Your task to perform on an android device: Check the news Image 0: 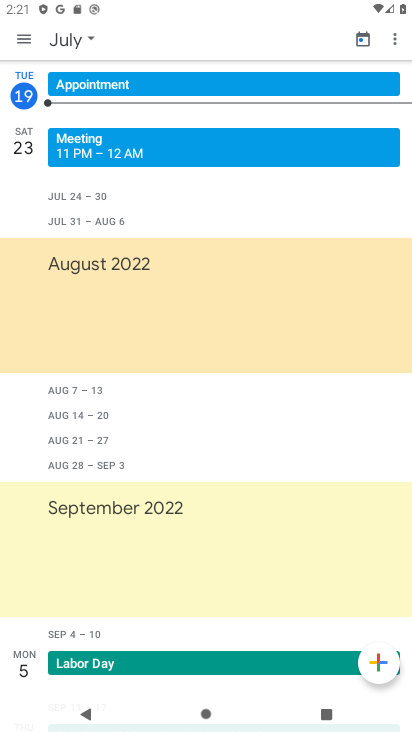
Step 0: press home button
Your task to perform on an android device: Check the news Image 1: 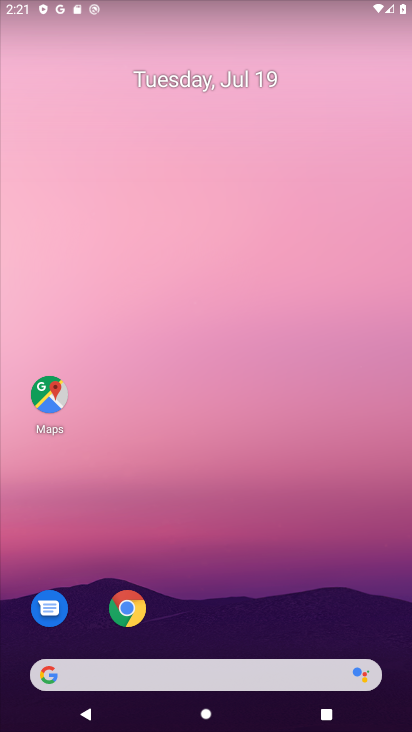
Step 1: click (131, 607)
Your task to perform on an android device: Check the news Image 2: 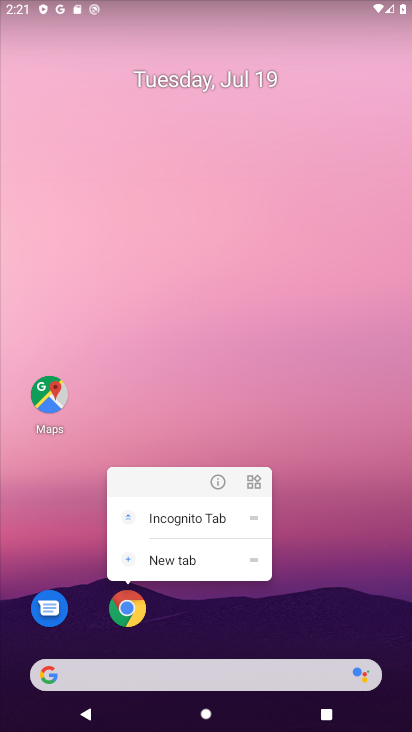
Step 2: click (131, 607)
Your task to perform on an android device: Check the news Image 3: 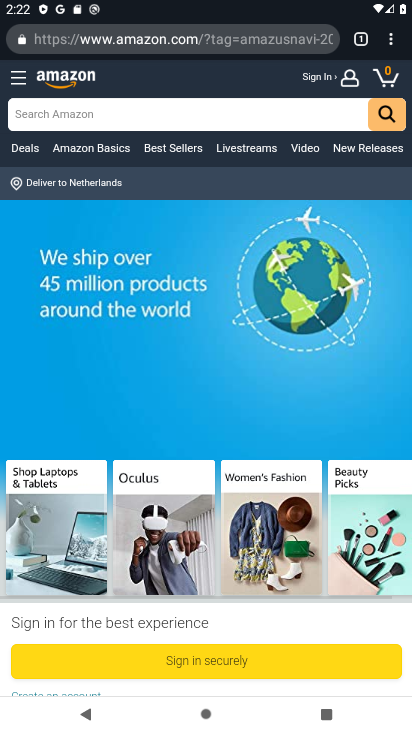
Step 3: click (235, 41)
Your task to perform on an android device: Check the news Image 4: 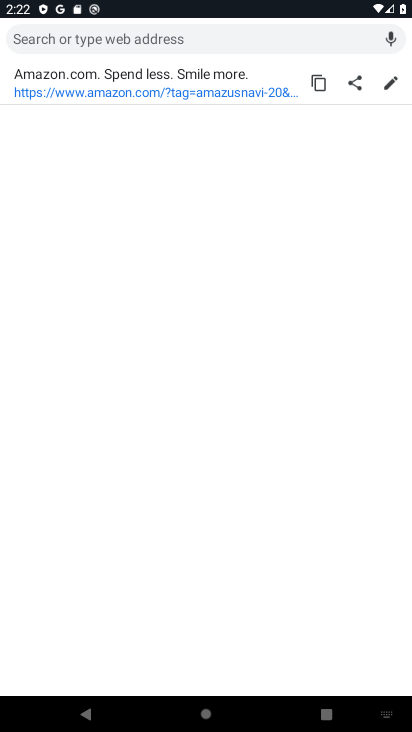
Step 4: type "news"
Your task to perform on an android device: Check the news Image 5: 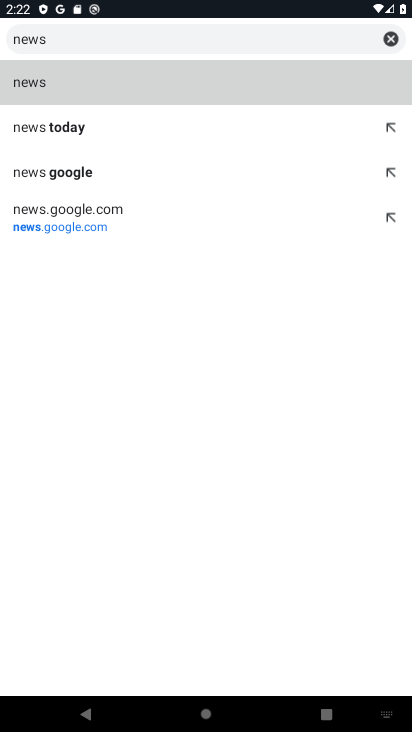
Step 5: click (44, 81)
Your task to perform on an android device: Check the news Image 6: 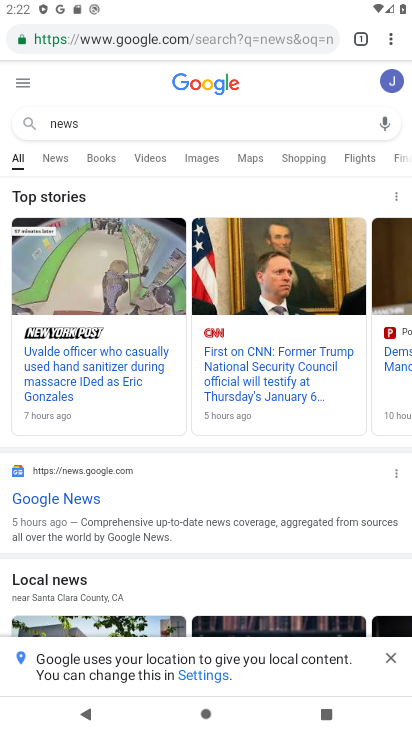
Step 6: click (64, 496)
Your task to perform on an android device: Check the news Image 7: 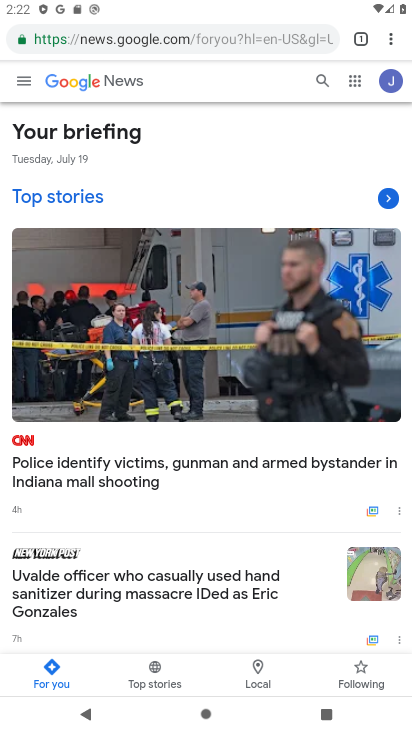
Step 7: task complete